Your task to perform on an android device: What's the price of the Hisense TV? Image 0: 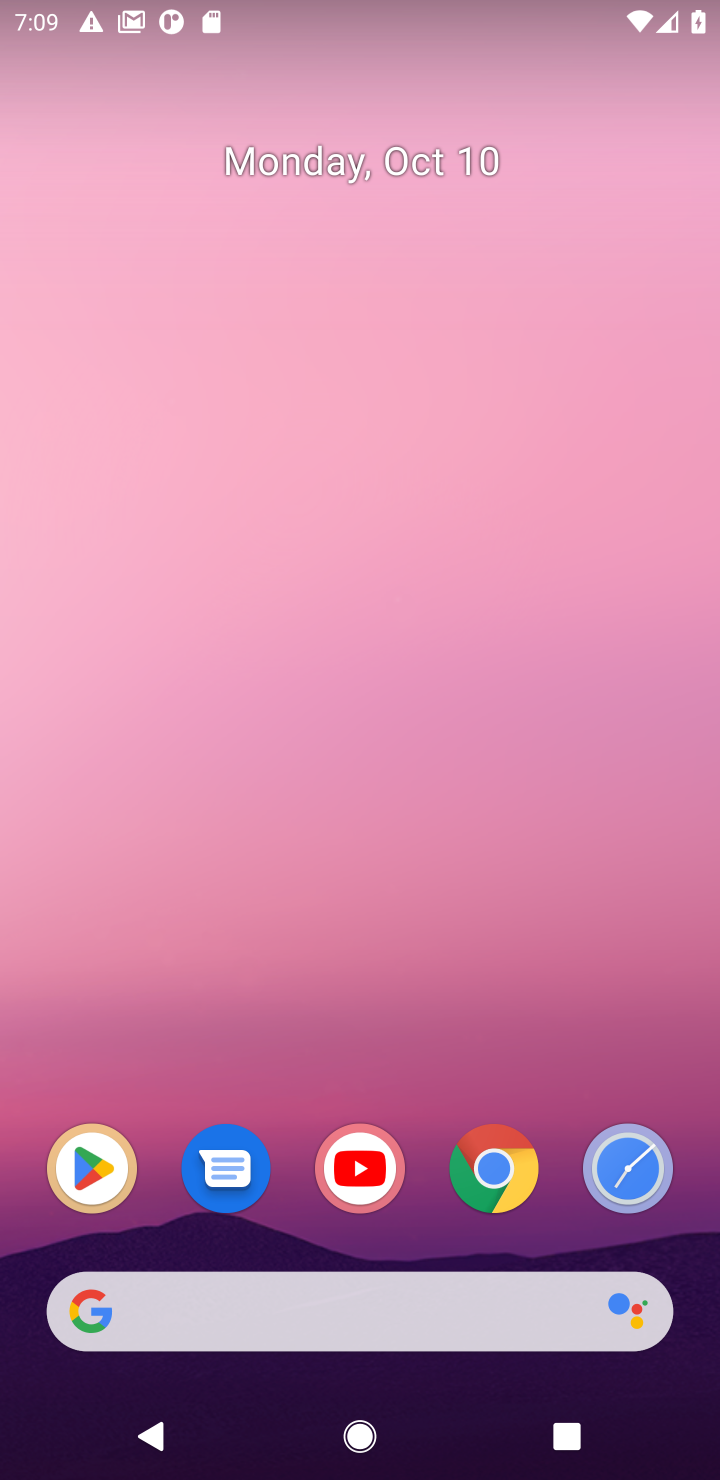
Step 0: click (490, 1176)
Your task to perform on an android device: What's the price of the Hisense TV? Image 1: 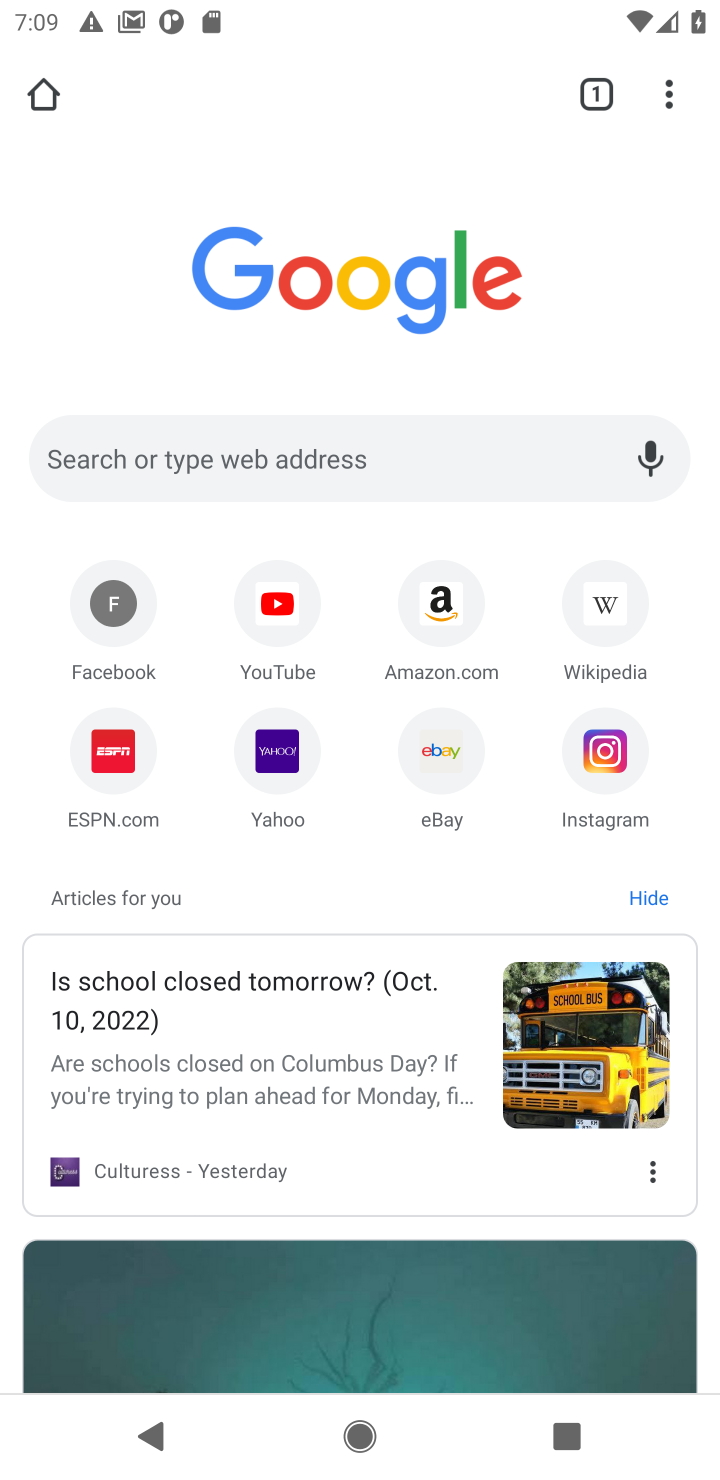
Step 1: click (280, 465)
Your task to perform on an android device: What's the price of the Hisense TV? Image 2: 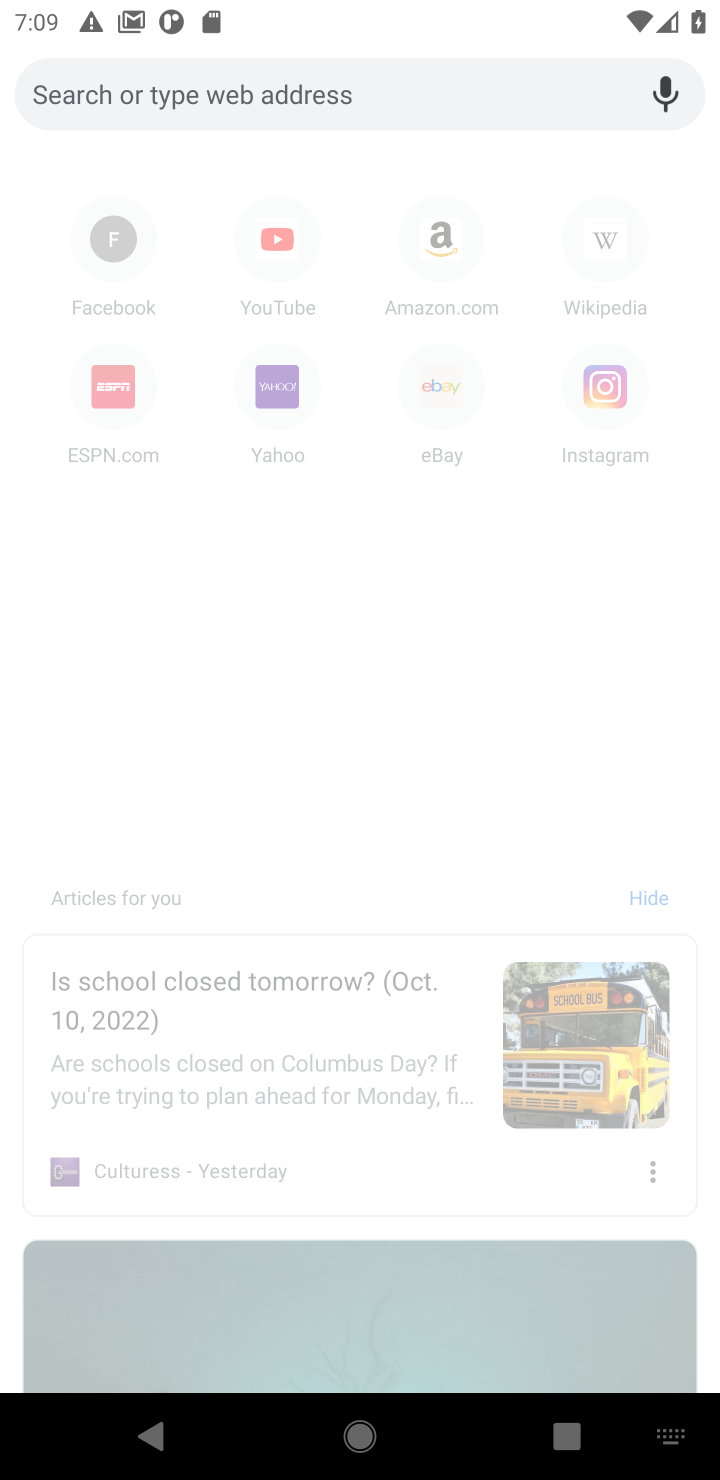
Step 2: type "price of hisense tv"
Your task to perform on an android device: What's the price of the Hisense TV? Image 3: 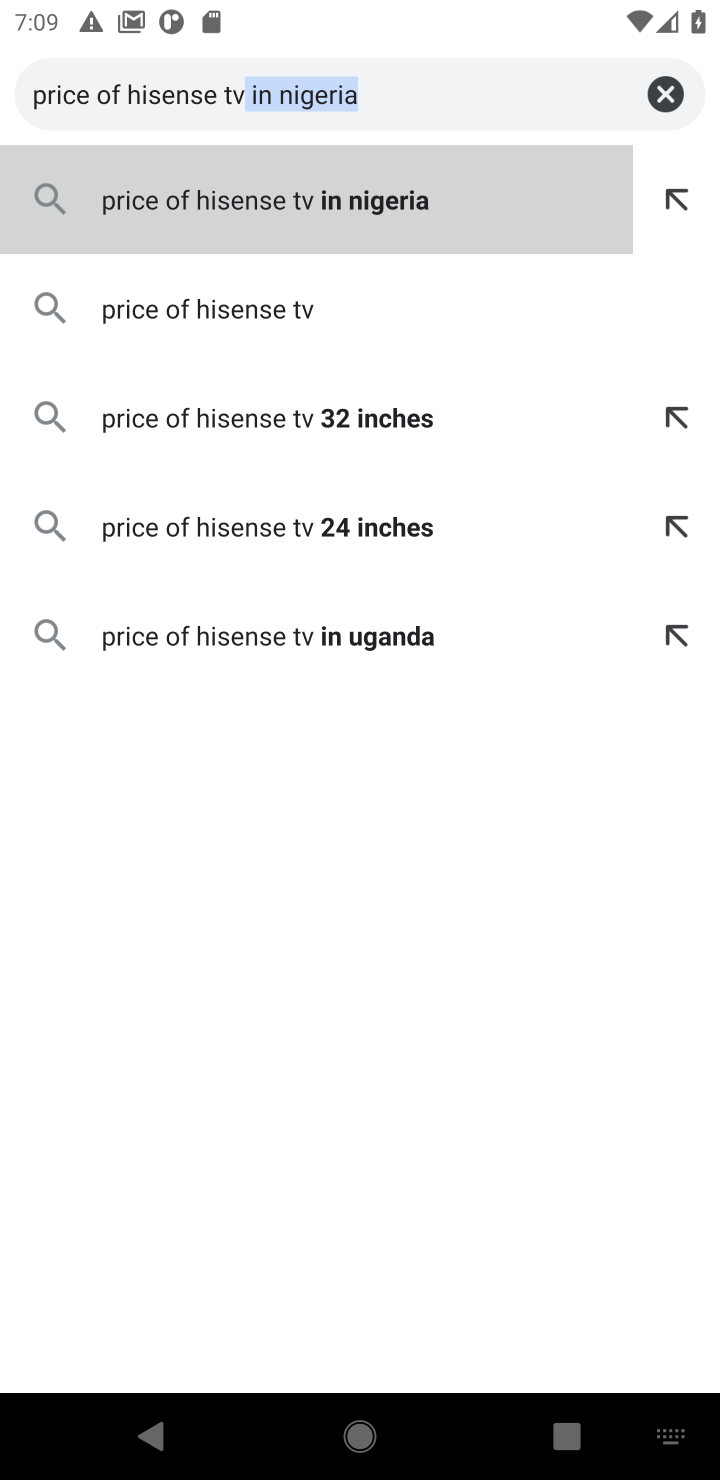
Step 3: click (239, 107)
Your task to perform on an android device: What's the price of the Hisense TV? Image 4: 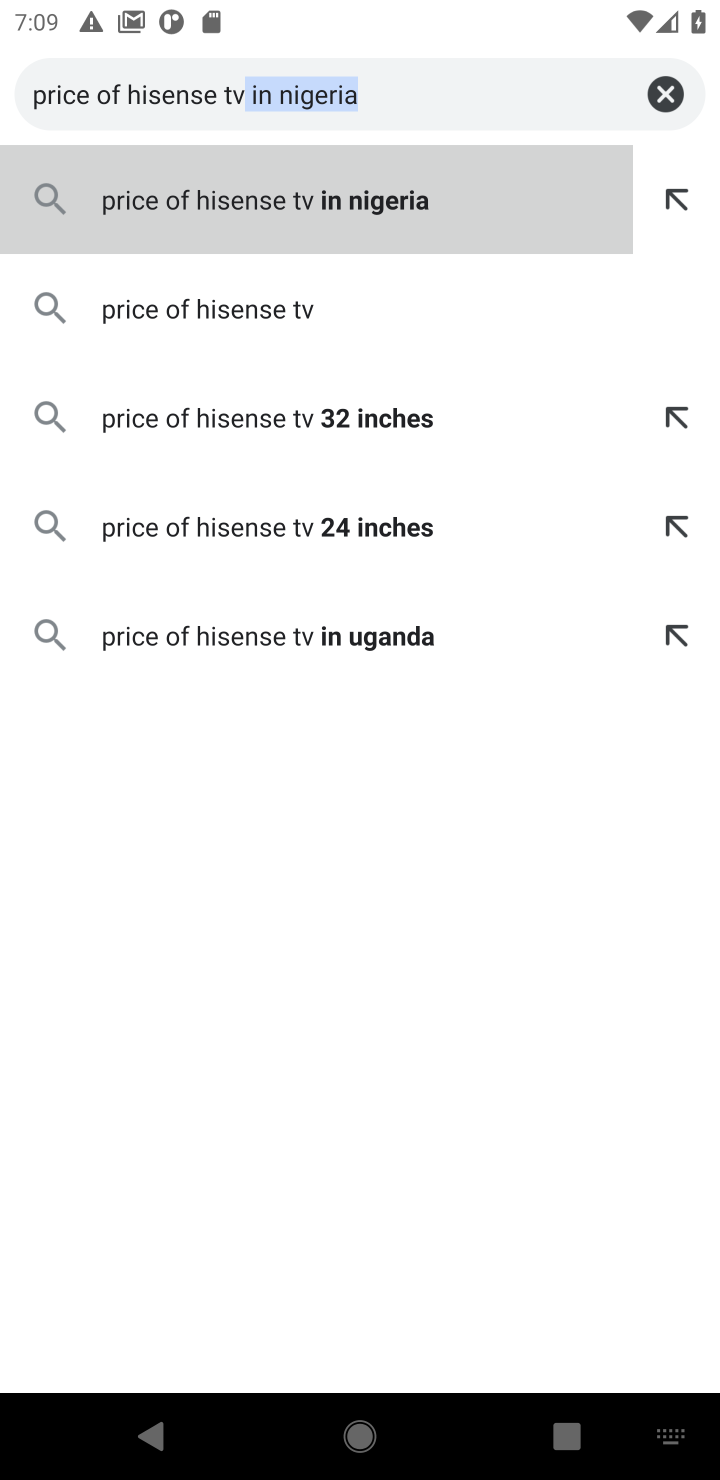
Step 4: click (241, 98)
Your task to perform on an android device: What's the price of the Hisense TV? Image 5: 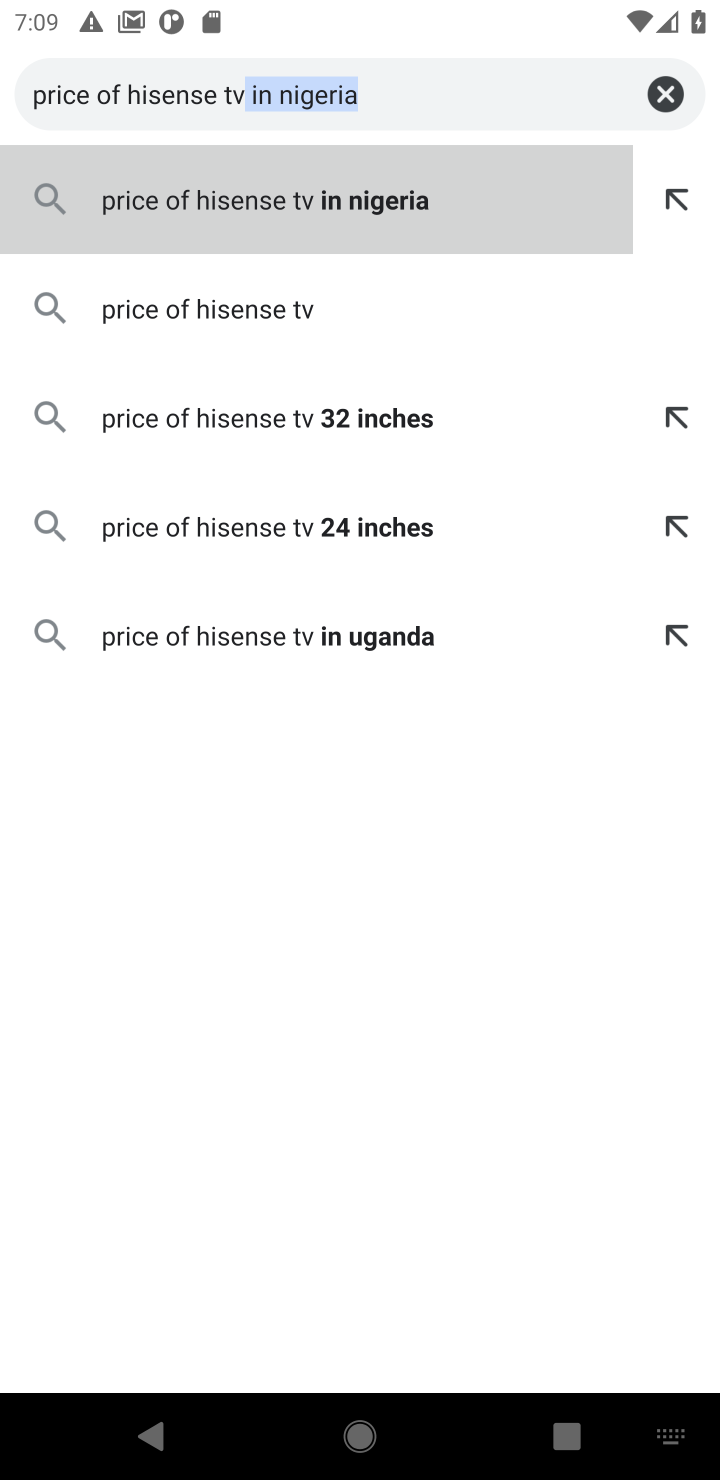
Step 5: click (243, 99)
Your task to perform on an android device: What's the price of the Hisense TV? Image 6: 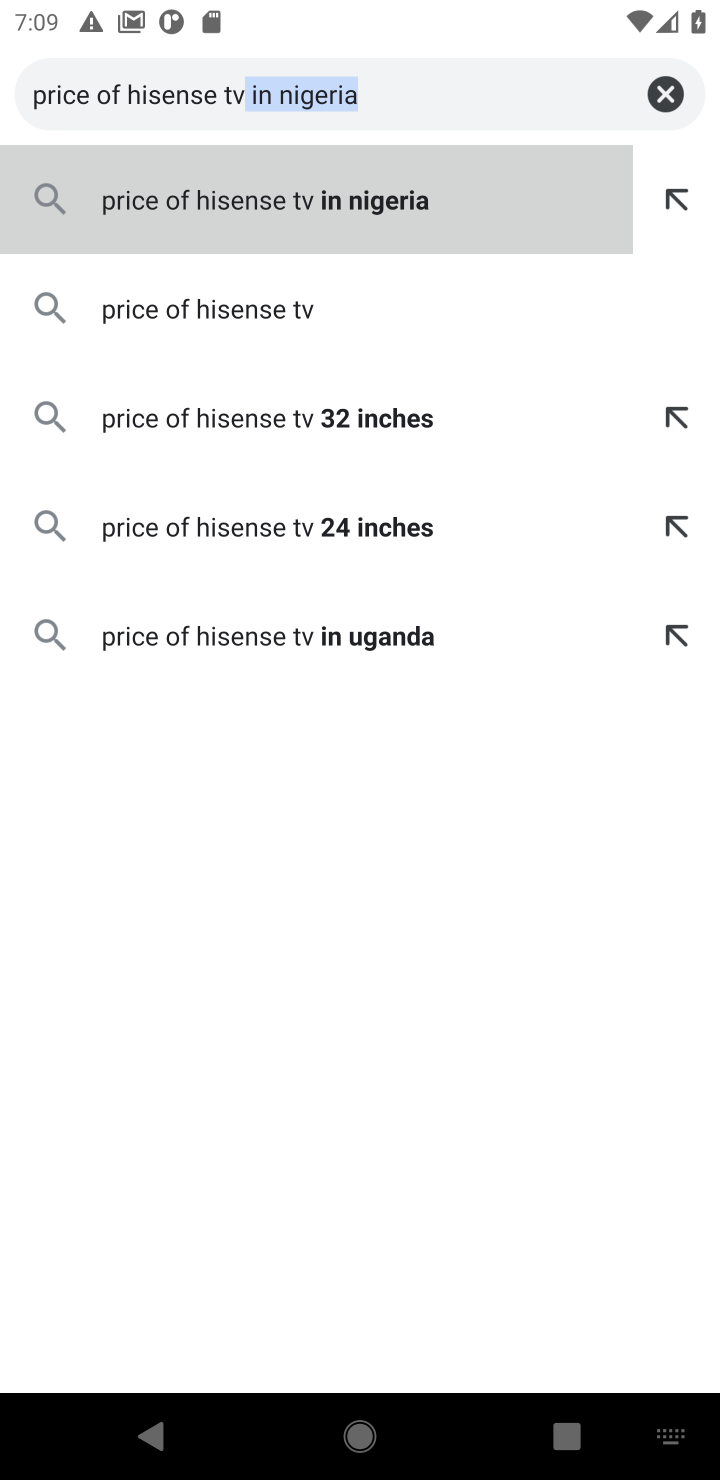
Step 6: click (254, 113)
Your task to perform on an android device: What's the price of the Hisense TV? Image 7: 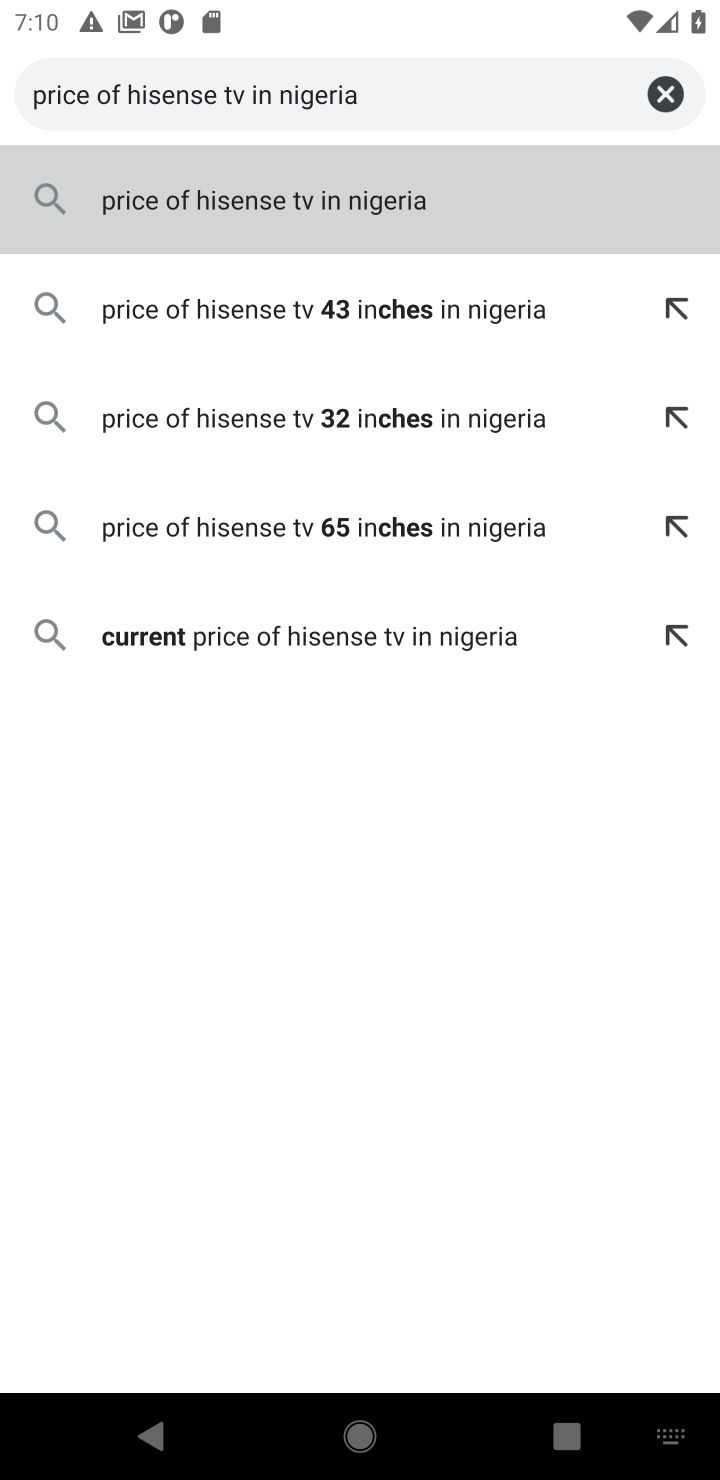
Step 7: click (250, 206)
Your task to perform on an android device: What's the price of the Hisense TV? Image 8: 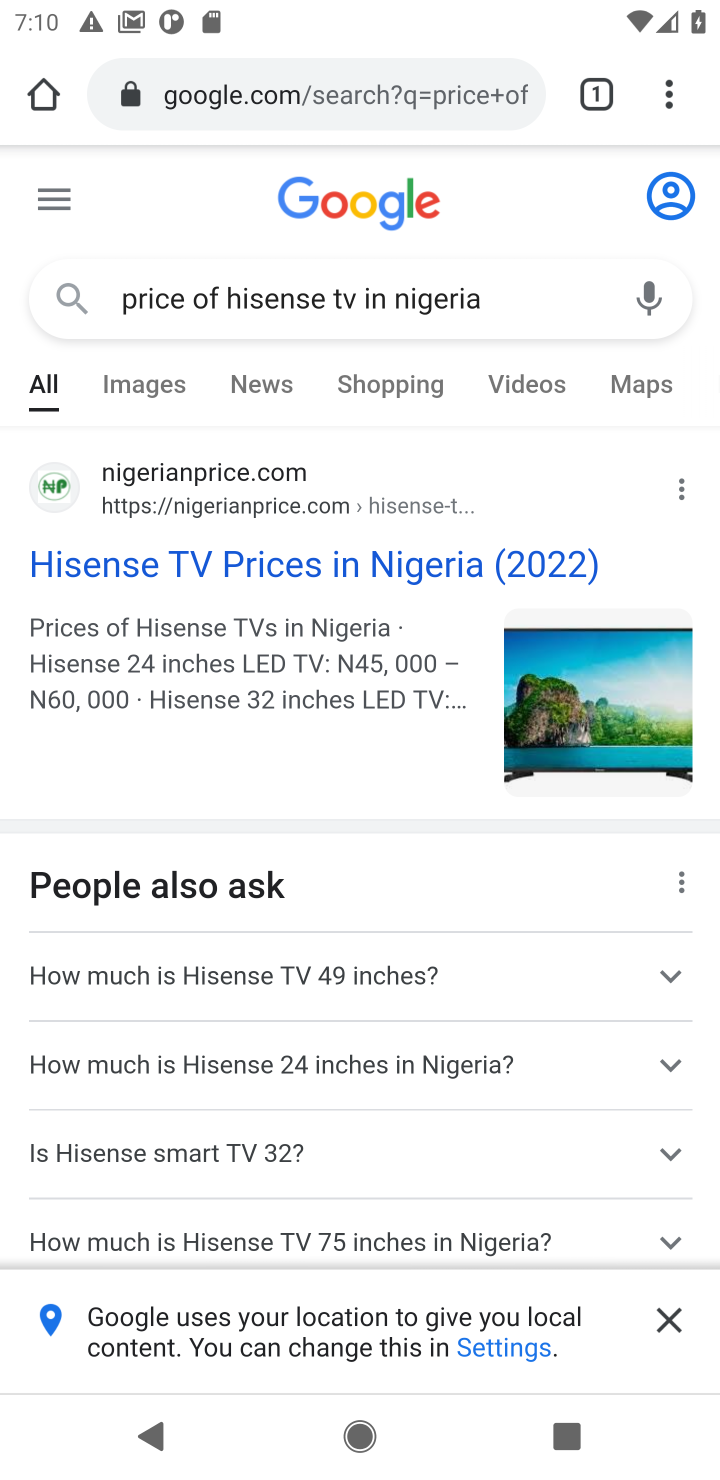
Step 8: drag from (281, 726) to (283, 438)
Your task to perform on an android device: What's the price of the Hisense TV? Image 9: 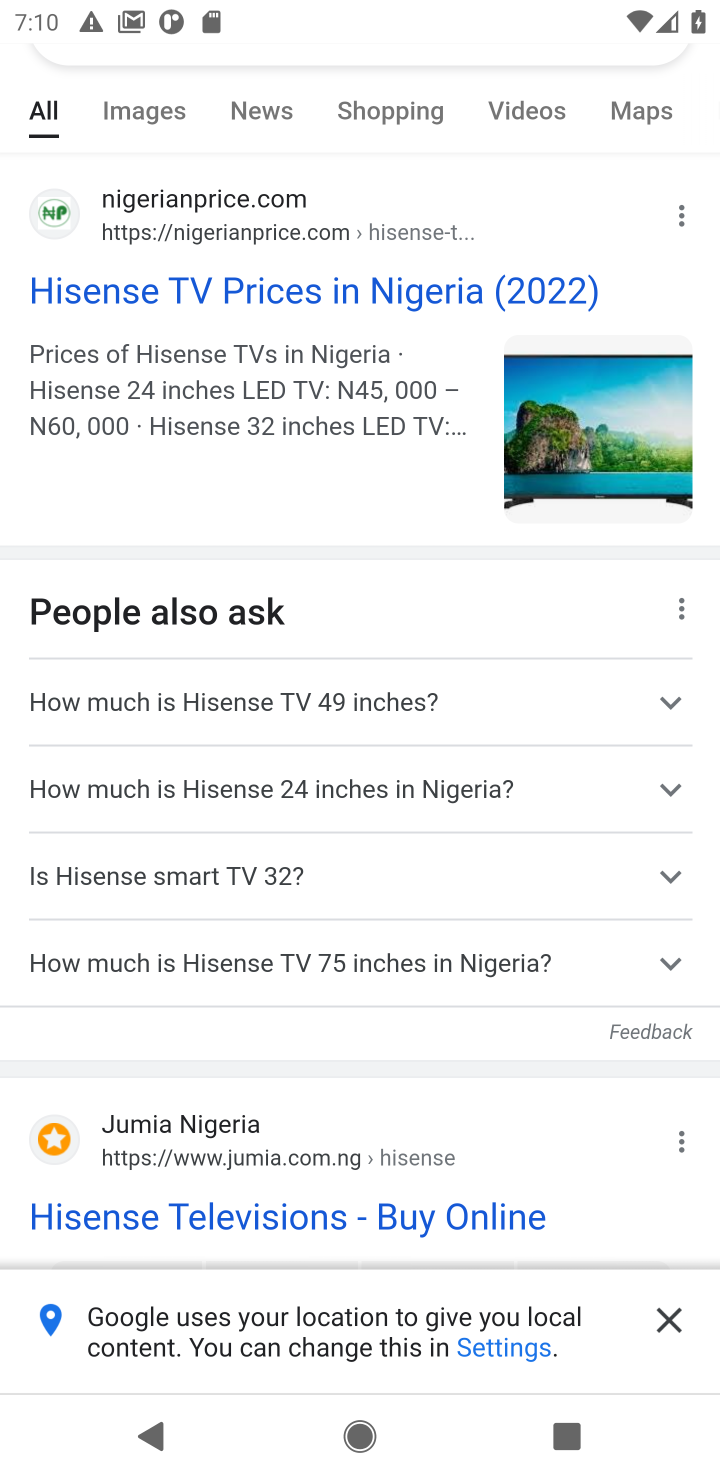
Step 9: click (219, 703)
Your task to perform on an android device: What's the price of the Hisense TV? Image 10: 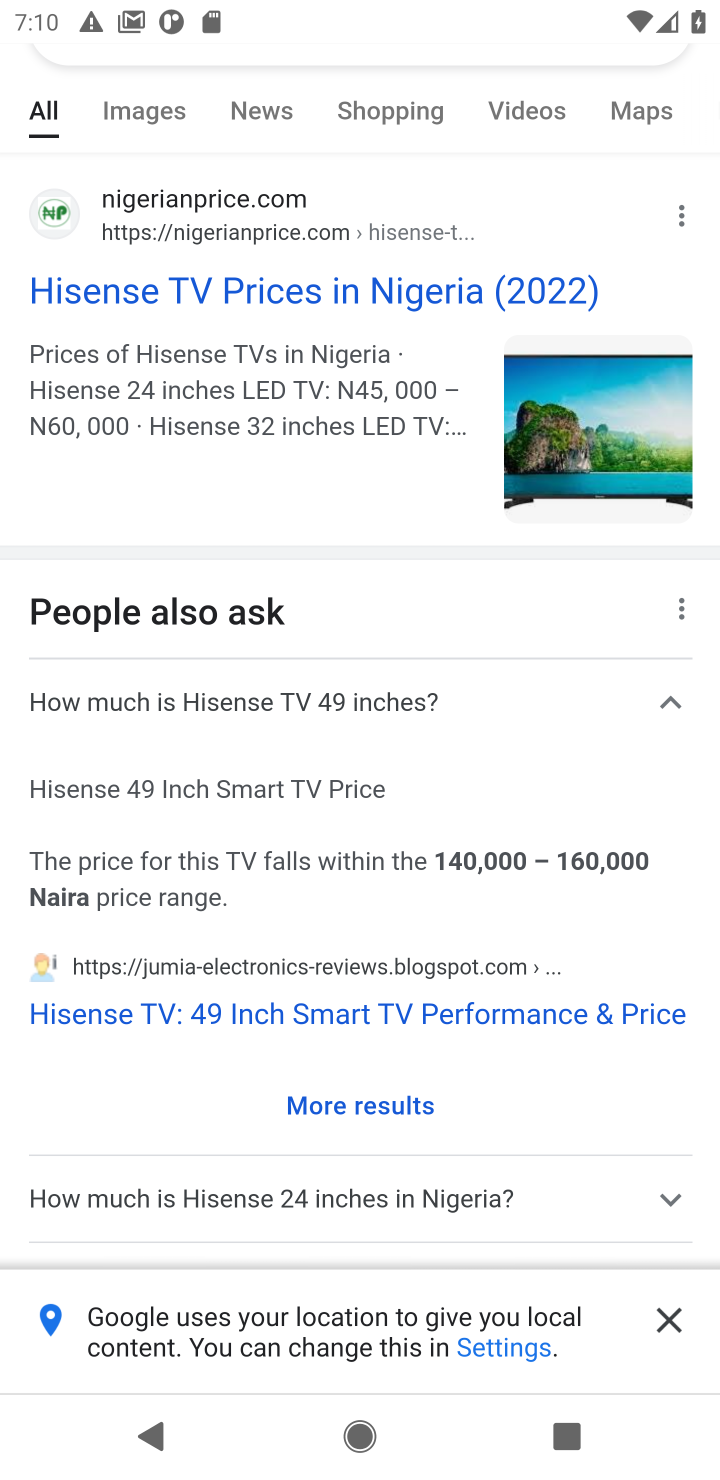
Step 10: task complete